Your task to perform on an android device: turn on location history Image 0: 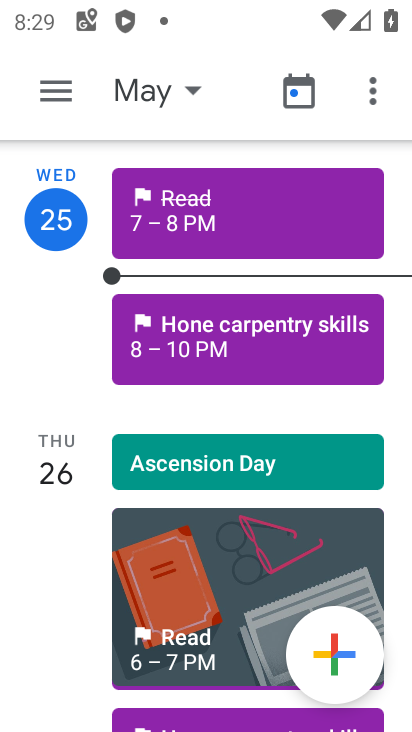
Step 0: press back button
Your task to perform on an android device: turn on location history Image 1: 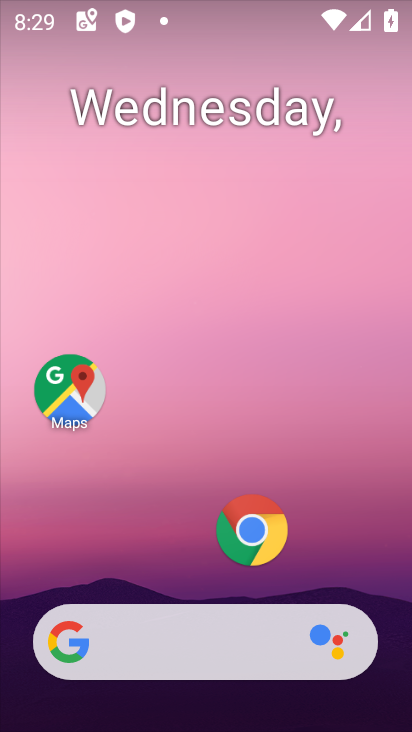
Step 1: drag from (136, 535) to (241, 77)
Your task to perform on an android device: turn on location history Image 2: 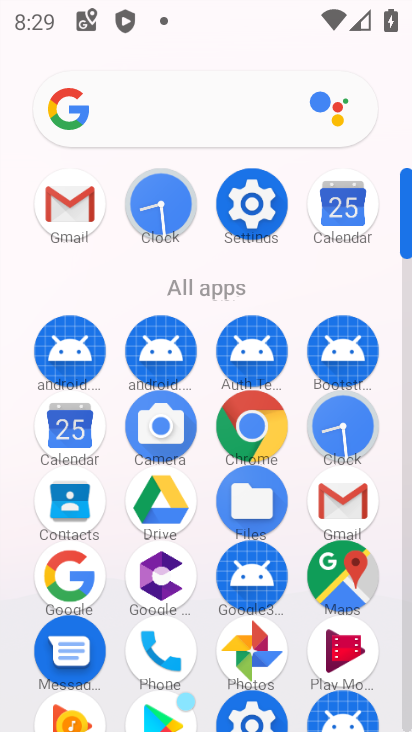
Step 2: click (249, 190)
Your task to perform on an android device: turn on location history Image 3: 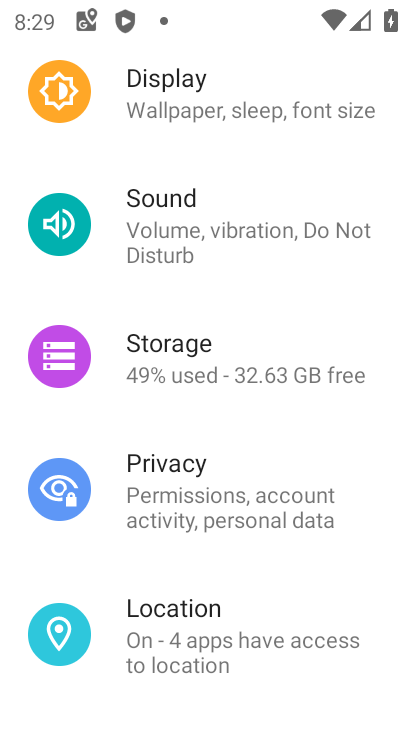
Step 3: click (185, 605)
Your task to perform on an android device: turn on location history Image 4: 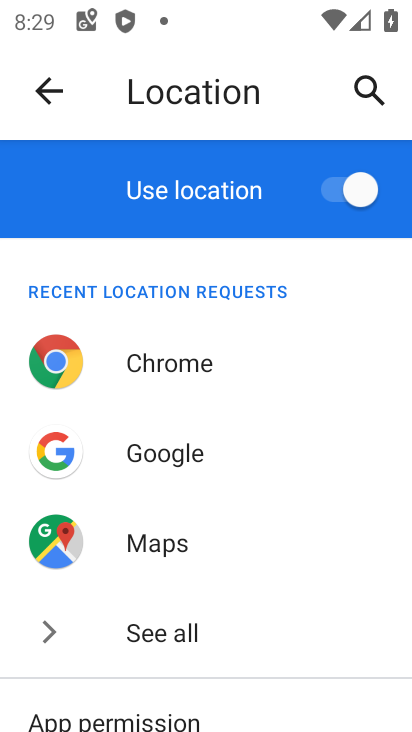
Step 4: drag from (174, 629) to (275, 159)
Your task to perform on an android device: turn on location history Image 5: 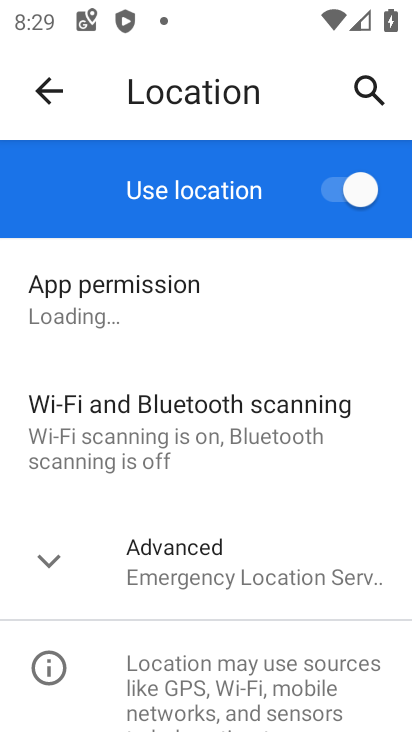
Step 5: click (224, 570)
Your task to perform on an android device: turn on location history Image 6: 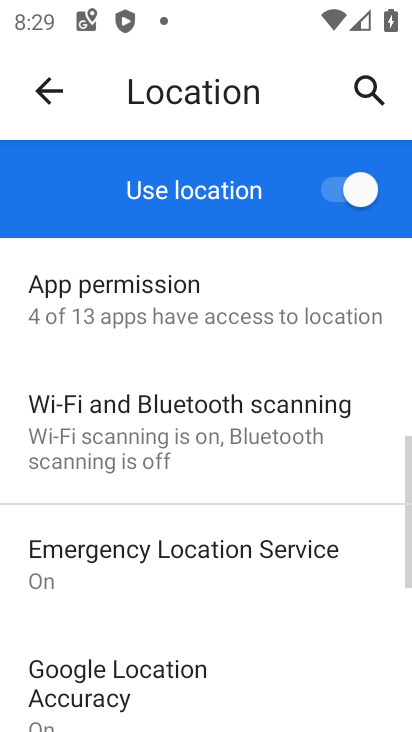
Step 6: drag from (204, 701) to (269, 363)
Your task to perform on an android device: turn on location history Image 7: 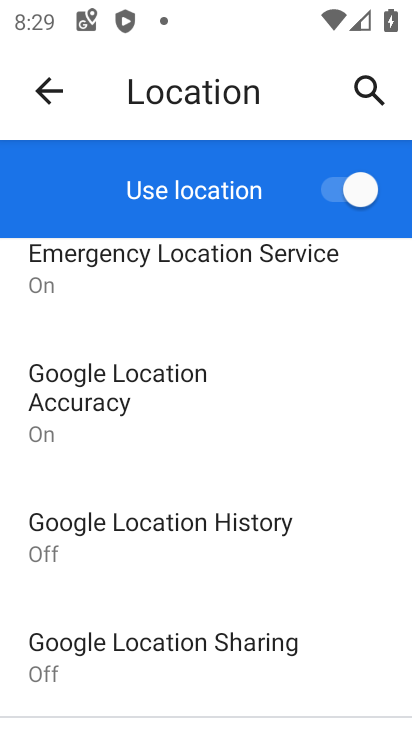
Step 7: click (190, 541)
Your task to perform on an android device: turn on location history Image 8: 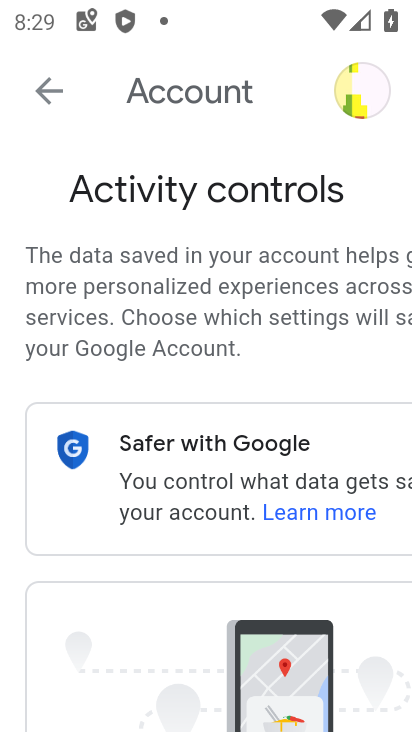
Step 8: task complete